Your task to perform on an android device: Go to privacy settings Image 0: 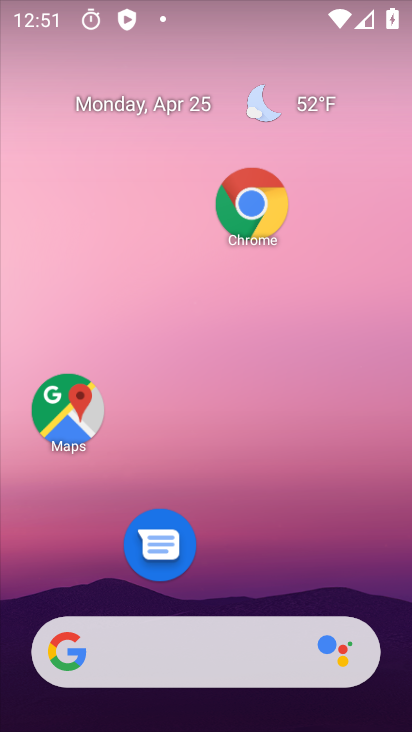
Step 0: drag from (303, 683) to (319, 156)
Your task to perform on an android device: Go to privacy settings Image 1: 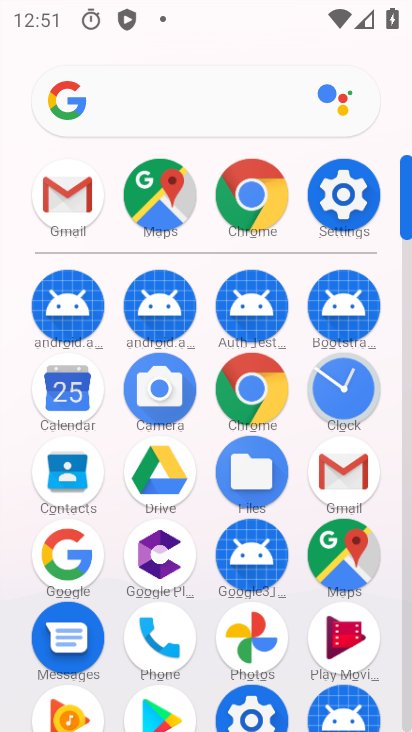
Step 1: click (334, 181)
Your task to perform on an android device: Go to privacy settings Image 2: 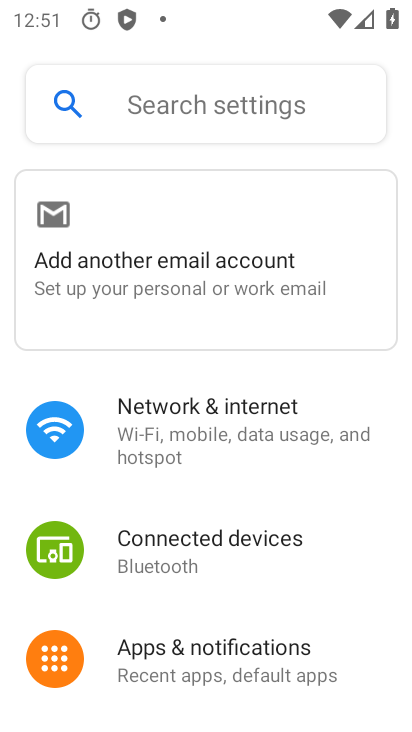
Step 2: drag from (226, 622) to (212, 302)
Your task to perform on an android device: Go to privacy settings Image 3: 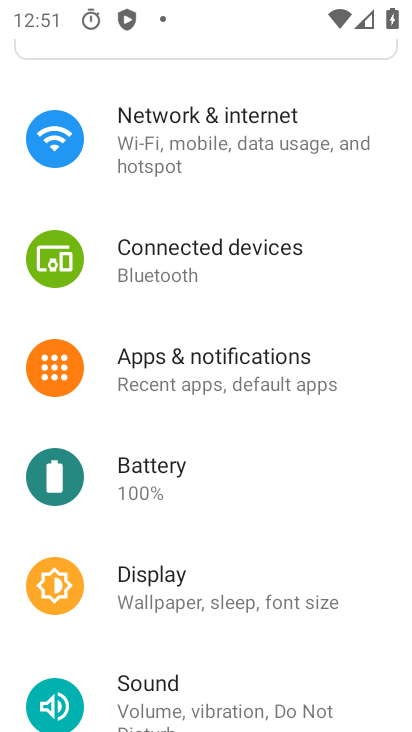
Step 3: drag from (168, 613) to (188, 445)
Your task to perform on an android device: Go to privacy settings Image 4: 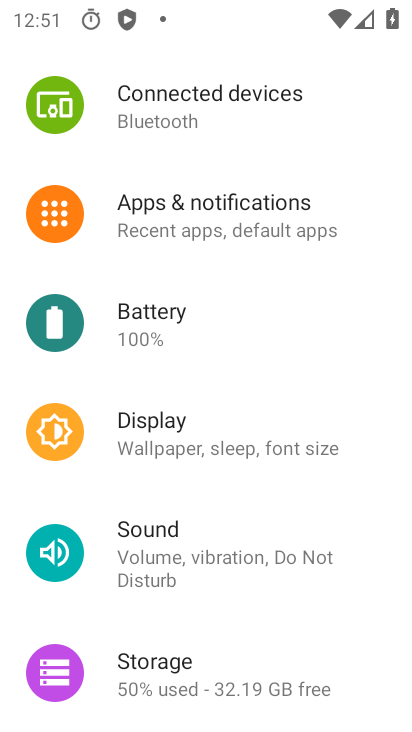
Step 4: drag from (182, 572) to (204, 345)
Your task to perform on an android device: Go to privacy settings Image 5: 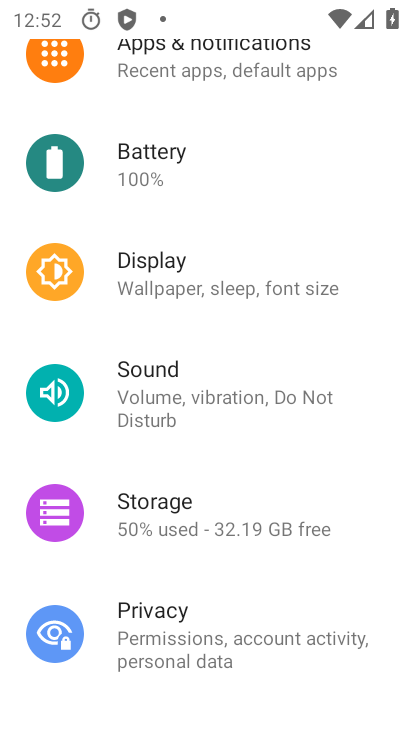
Step 5: click (153, 631)
Your task to perform on an android device: Go to privacy settings Image 6: 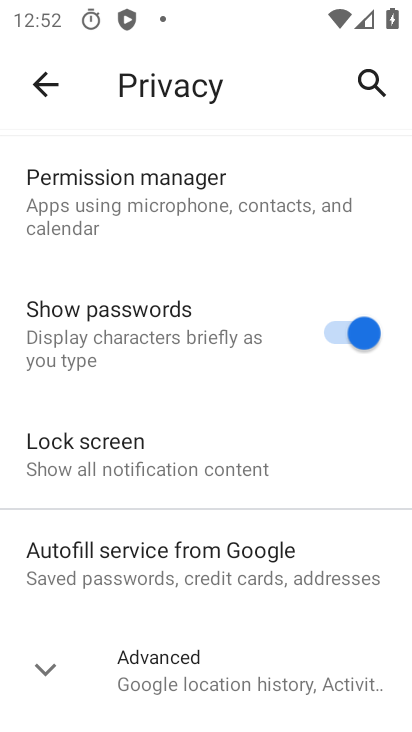
Step 6: task complete